Your task to perform on an android device: turn on data saver in the chrome app Image 0: 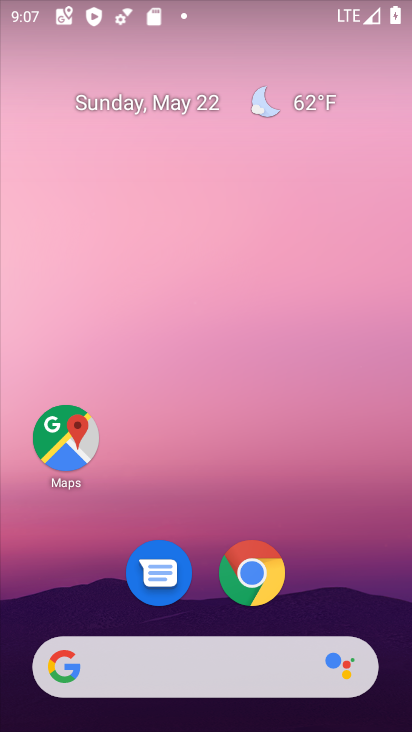
Step 0: drag from (237, 701) to (261, 66)
Your task to perform on an android device: turn on data saver in the chrome app Image 1: 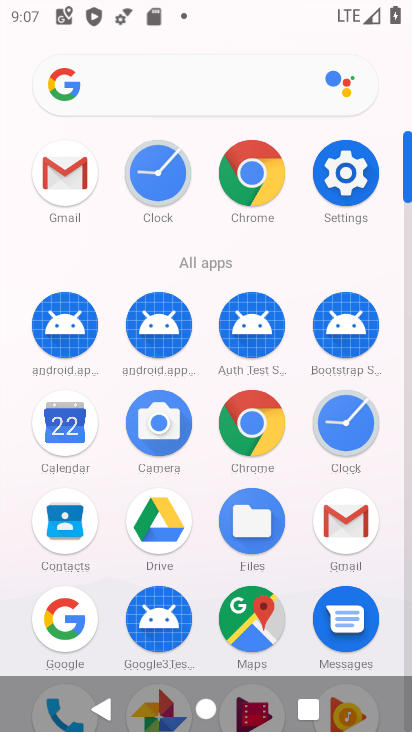
Step 1: click (235, 396)
Your task to perform on an android device: turn on data saver in the chrome app Image 2: 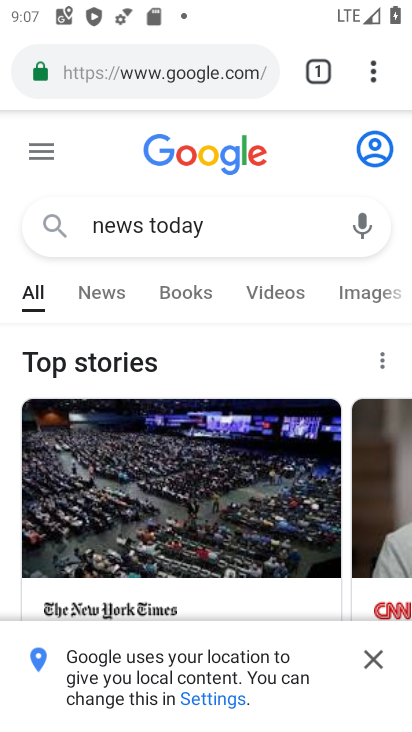
Step 2: drag from (368, 74) to (163, 613)
Your task to perform on an android device: turn on data saver in the chrome app Image 3: 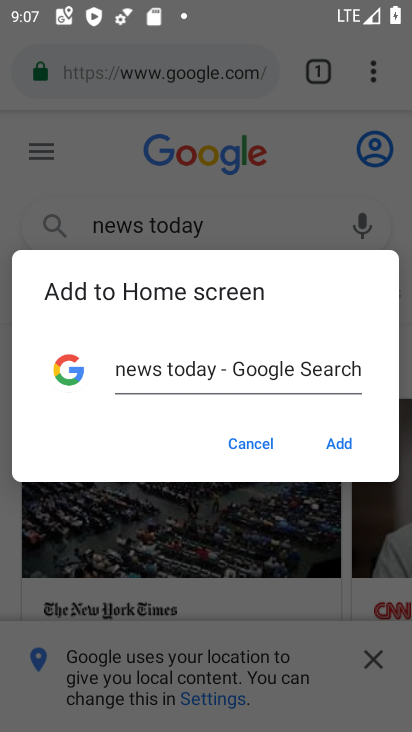
Step 3: drag from (164, 600) to (261, 495)
Your task to perform on an android device: turn on data saver in the chrome app Image 4: 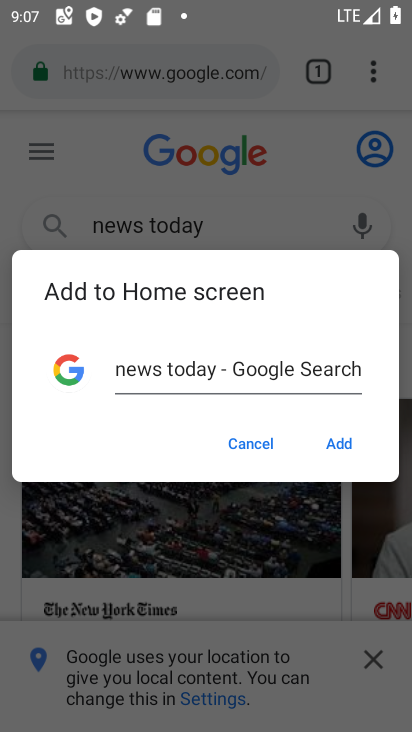
Step 4: click (267, 448)
Your task to perform on an android device: turn on data saver in the chrome app Image 5: 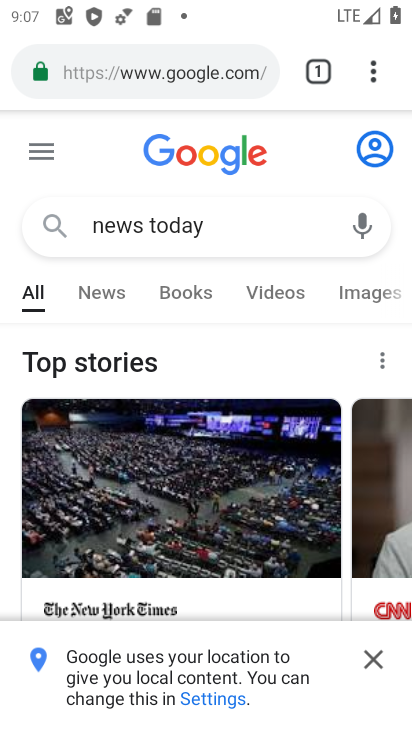
Step 5: drag from (370, 84) to (110, 569)
Your task to perform on an android device: turn on data saver in the chrome app Image 6: 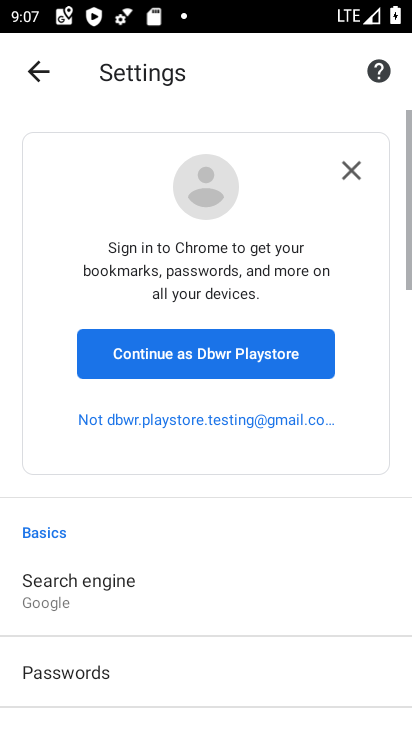
Step 6: drag from (231, 616) to (306, 53)
Your task to perform on an android device: turn on data saver in the chrome app Image 7: 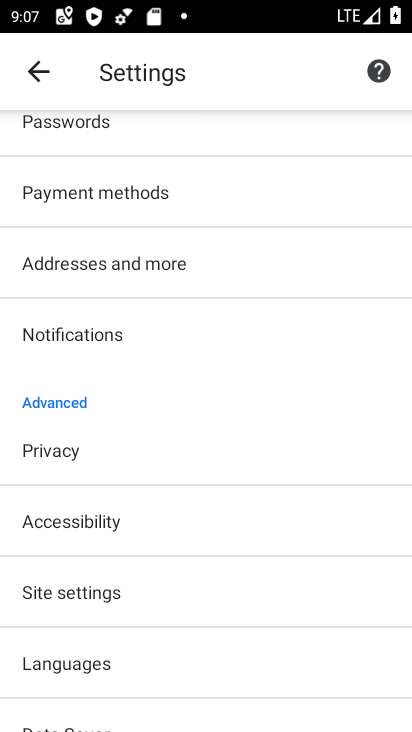
Step 7: drag from (293, 623) to (307, 380)
Your task to perform on an android device: turn on data saver in the chrome app Image 8: 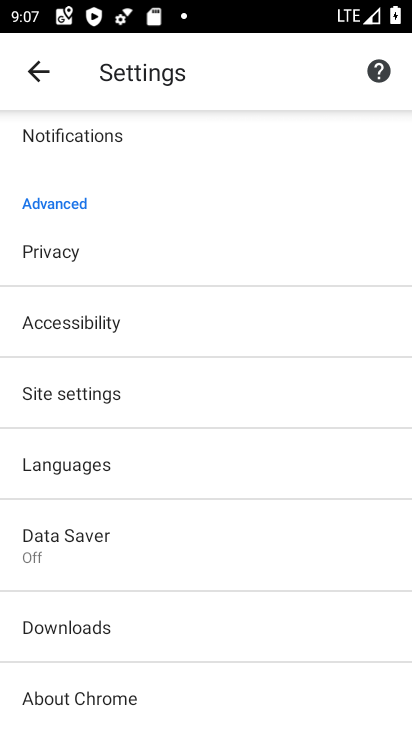
Step 8: click (124, 397)
Your task to perform on an android device: turn on data saver in the chrome app Image 9: 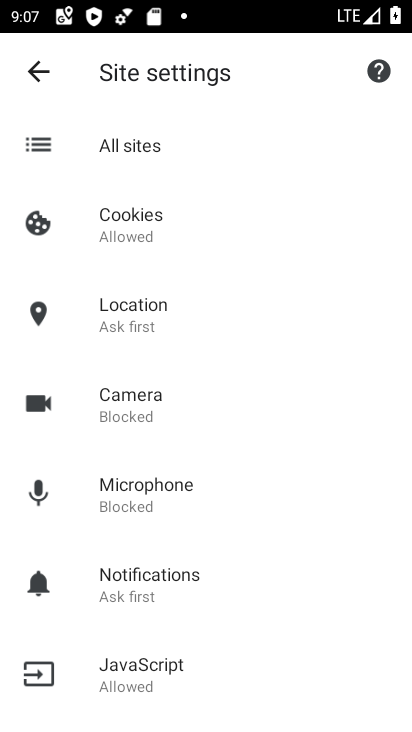
Step 9: press back button
Your task to perform on an android device: turn on data saver in the chrome app Image 10: 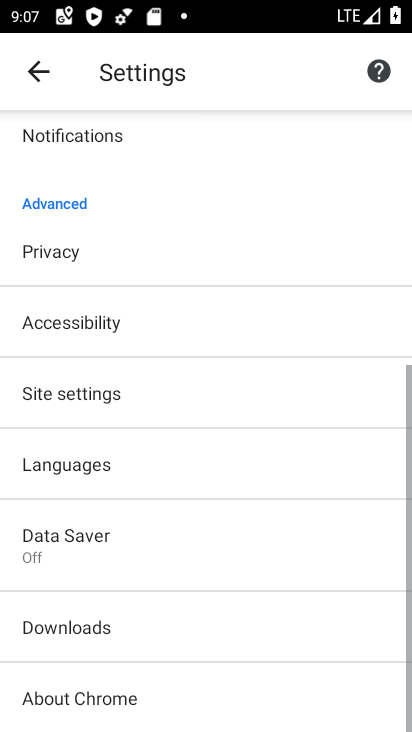
Step 10: click (143, 535)
Your task to perform on an android device: turn on data saver in the chrome app Image 11: 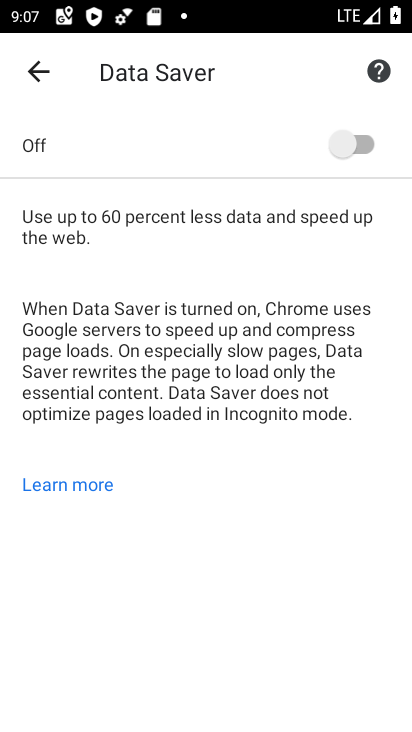
Step 11: click (357, 140)
Your task to perform on an android device: turn on data saver in the chrome app Image 12: 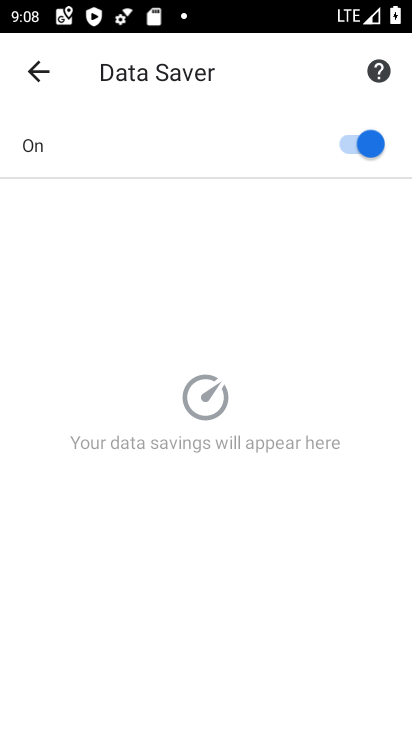
Step 12: task complete